Your task to perform on an android device: allow notifications from all sites in the chrome app Image 0: 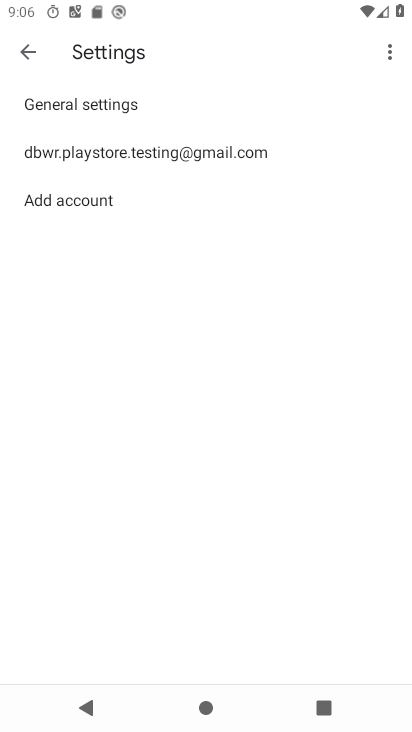
Step 0: press home button
Your task to perform on an android device: allow notifications from all sites in the chrome app Image 1: 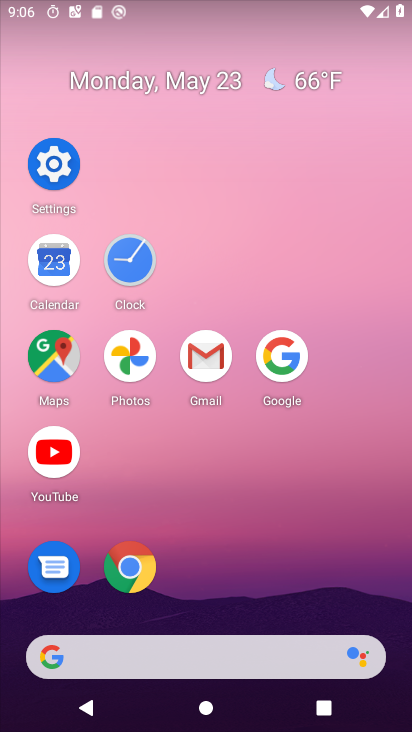
Step 1: click (133, 584)
Your task to perform on an android device: allow notifications from all sites in the chrome app Image 2: 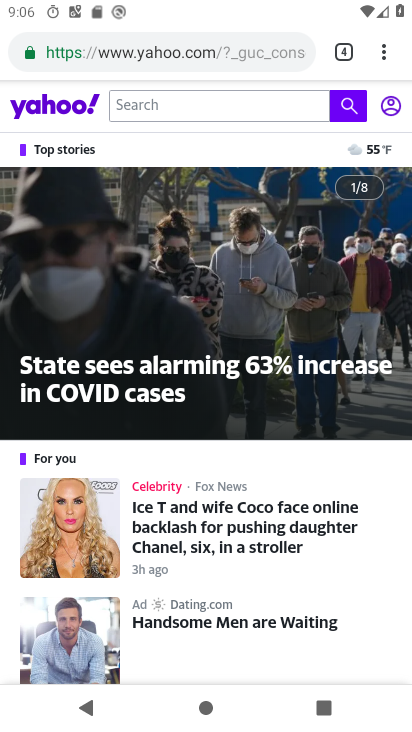
Step 2: click (393, 62)
Your task to perform on an android device: allow notifications from all sites in the chrome app Image 3: 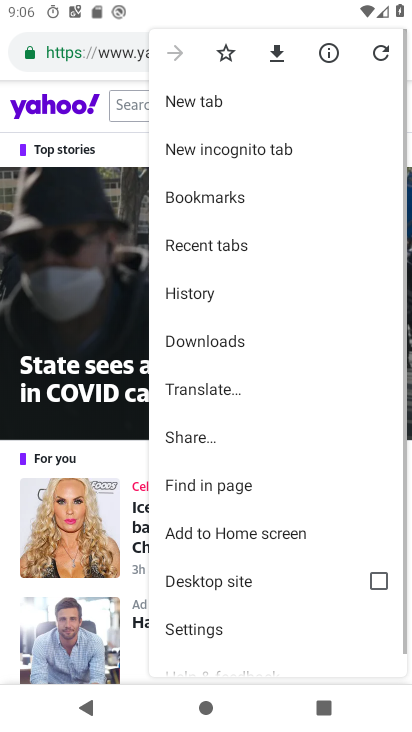
Step 3: click (303, 166)
Your task to perform on an android device: allow notifications from all sites in the chrome app Image 4: 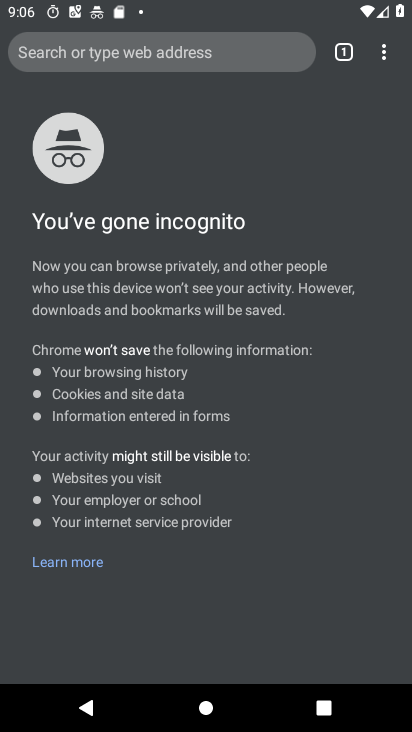
Step 4: click (394, 66)
Your task to perform on an android device: allow notifications from all sites in the chrome app Image 5: 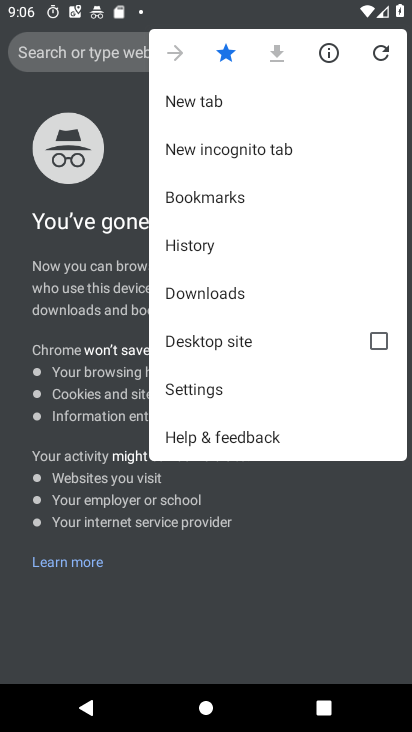
Step 5: click (255, 395)
Your task to perform on an android device: allow notifications from all sites in the chrome app Image 6: 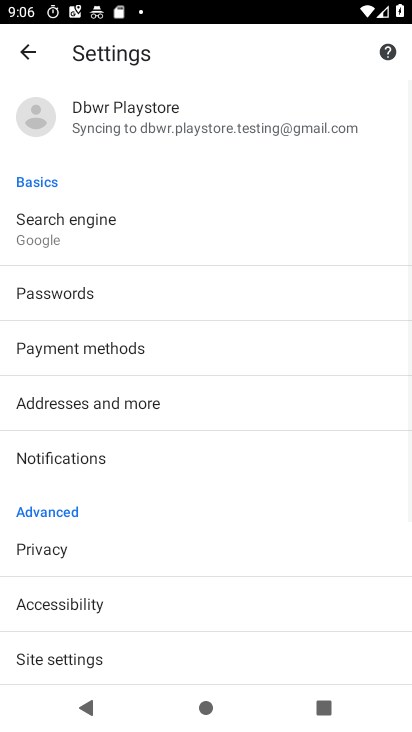
Step 6: drag from (118, 507) to (153, 226)
Your task to perform on an android device: allow notifications from all sites in the chrome app Image 7: 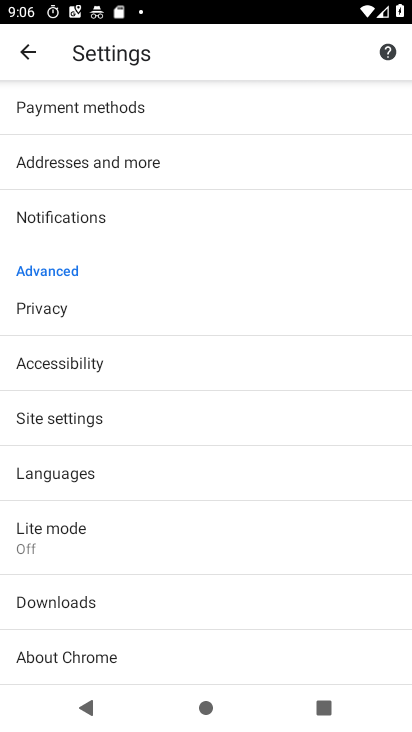
Step 7: drag from (203, 524) to (244, 288)
Your task to perform on an android device: allow notifications from all sites in the chrome app Image 8: 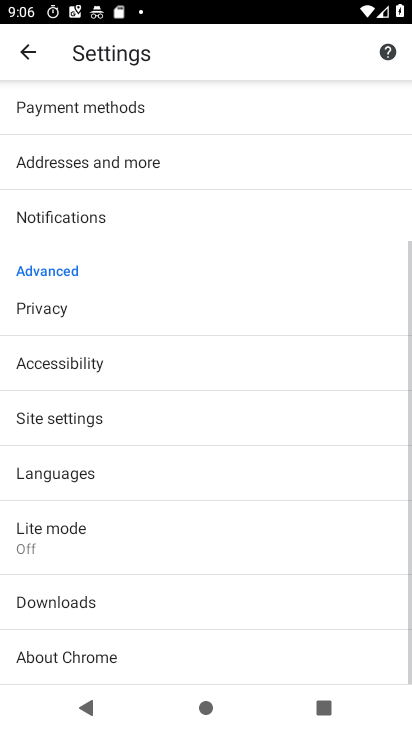
Step 8: click (162, 221)
Your task to perform on an android device: allow notifications from all sites in the chrome app Image 9: 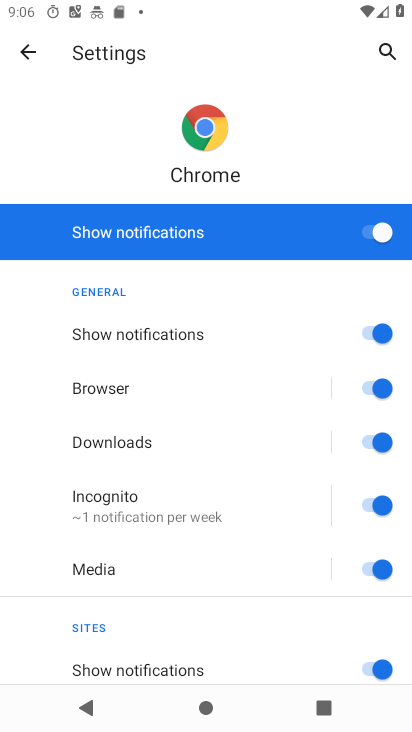
Step 9: task complete